Your task to perform on an android device: Is it going to rain tomorrow? Image 0: 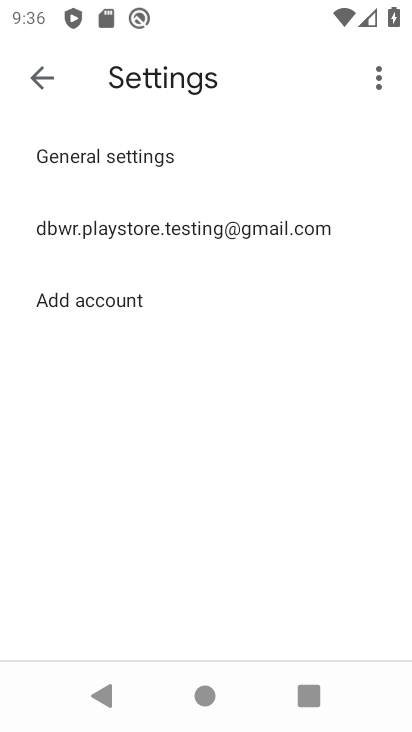
Step 0: press home button
Your task to perform on an android device: Is it going to rain tomorrow? Image 1: 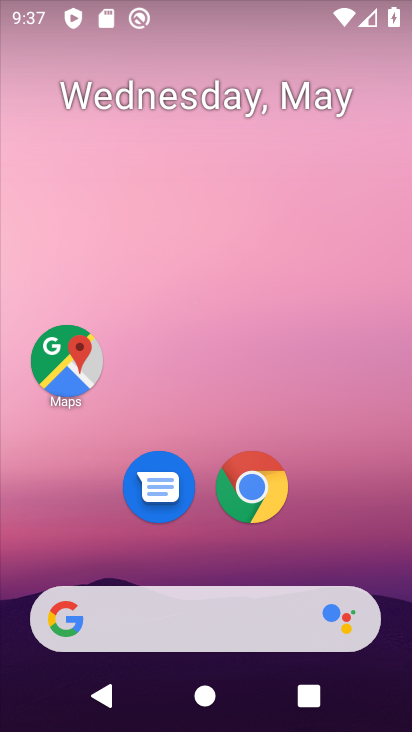
Step 1: drag from (263, 653) to (209, 80)
Your task to perform on an android device: Is it going to rain tomorrow? Image 2: 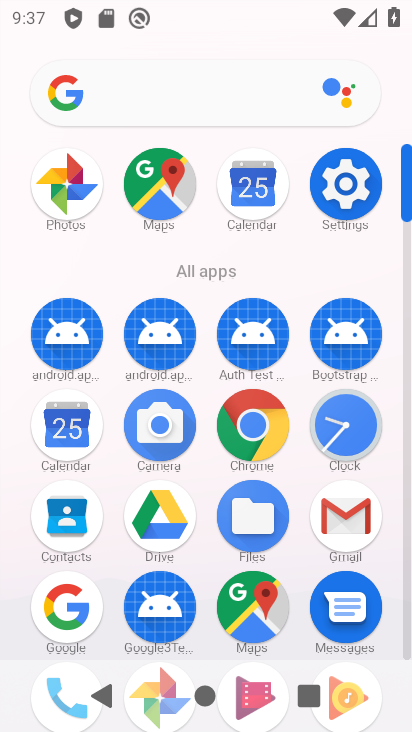
Step 2: click (131, 110)
Your task to perform on an android device: Is it going to rain tomorrow? Image 3: 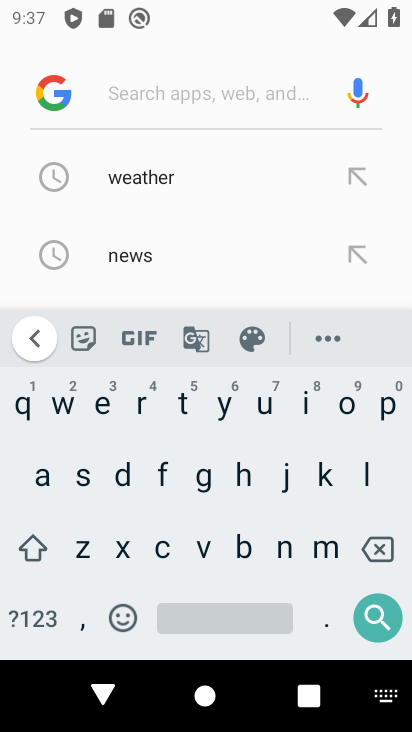
Step 3: click (152, 186)
Your task to perform on an android device: Is it going to rain tomorrow? Image 4: 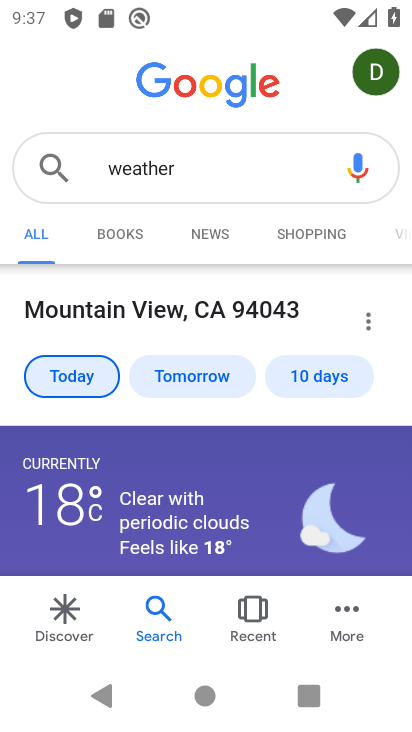
Step 4: click (201, 373)
Your task to perform on an android device: Is it going to rain tomorrow? Image 5: 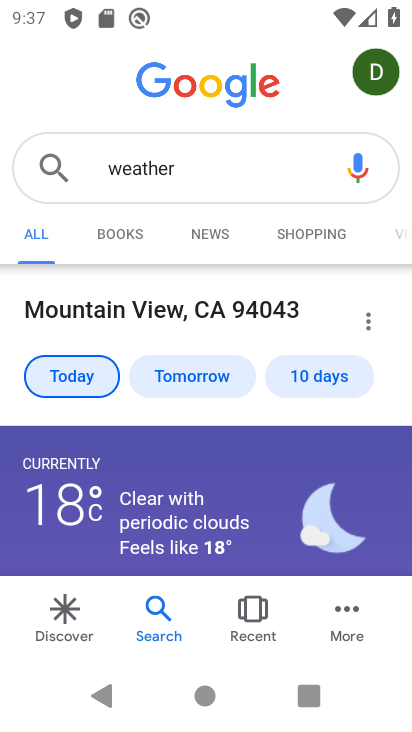
Step 5: click (195, 372)
Your task to perform on an android device: Is it going to rain tomorrow? Image 6: 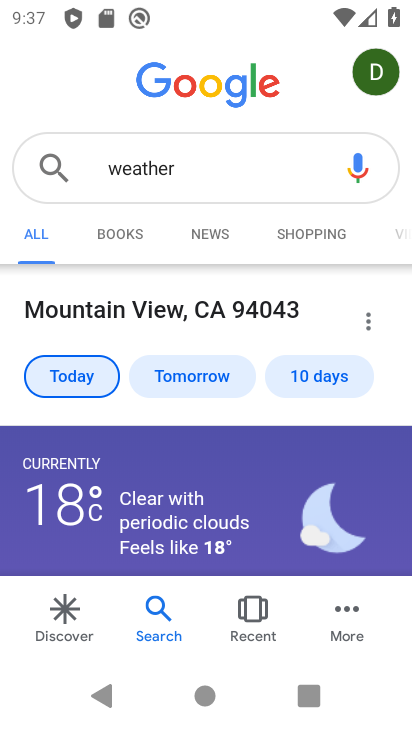
Step 6: click (202, 371)
Your task to perform on an android device: Is it going to rain tomorrow? Image 7: 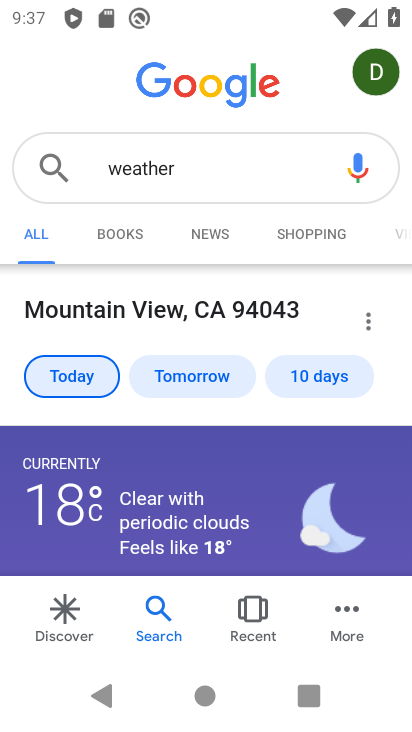
Step 7: click (202, 371)
Your task to perform on an android device: Is it going to rain tomorrow? Image 8: 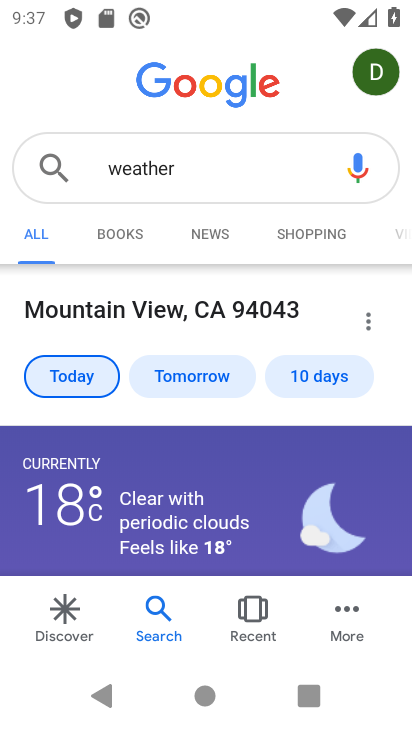
Step 8: task complete